Your task to perform on an android device: check android version Image 0: 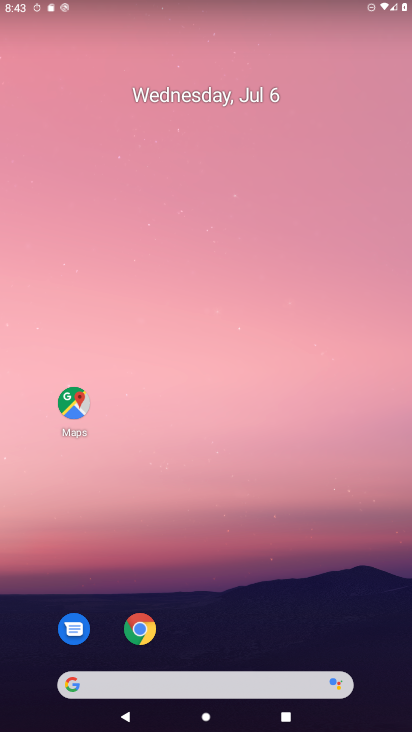
Step 0: drag from (229, 721) to (226, 190)
Your task to perform on an android device: check android version Image 1: 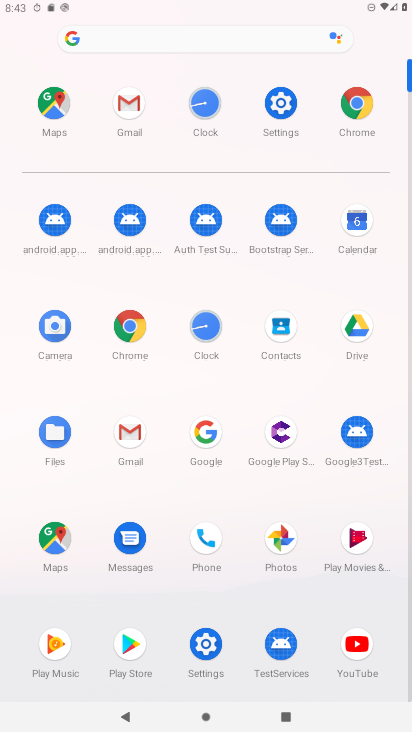
Step 1: click (285, 103)
Your task to perform on an android device: check android version Image 2: 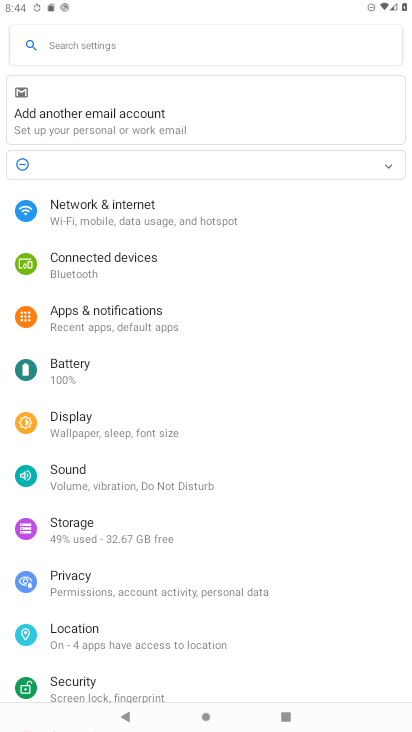
Step 2: drag from (123, 662) to (107, 254)
Your task to perform on an android device: check android version Image 3: 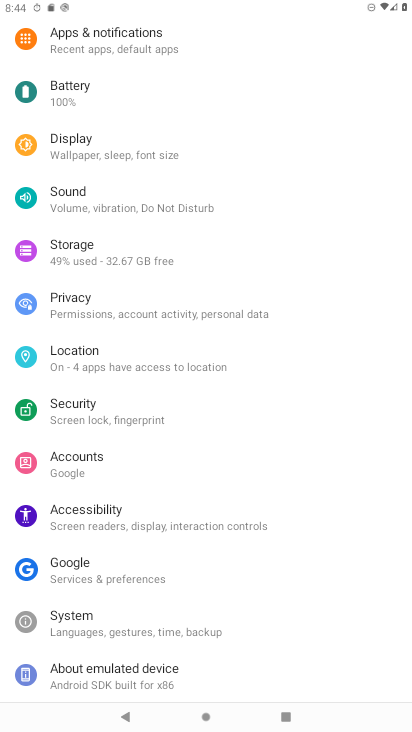
Step 3: click (141, 671)
Your task to perform on an android device: check android version Image 4: 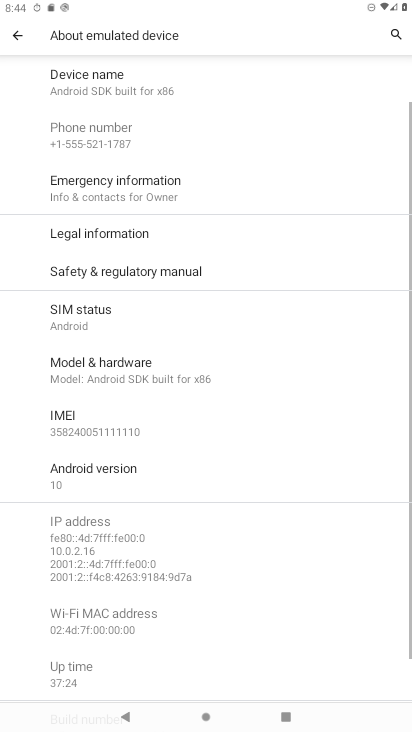
Step 4: click (89, 465)
Your task to perform on an android device: check android version Image 5: 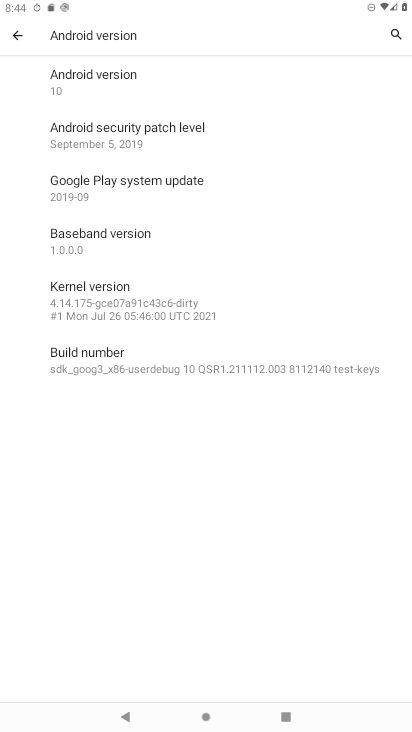
Step 5: click (57, 73)
Your task to perform on an android device: check android version Image 6: 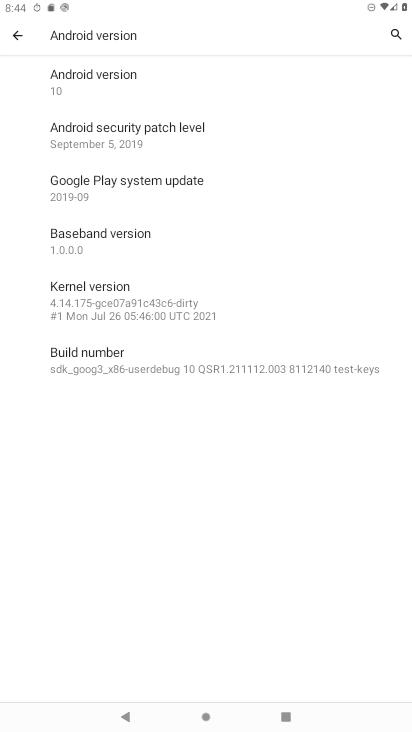
Step 6: task complete